Your task to perform on an android device: Go to Google maps Image 0: 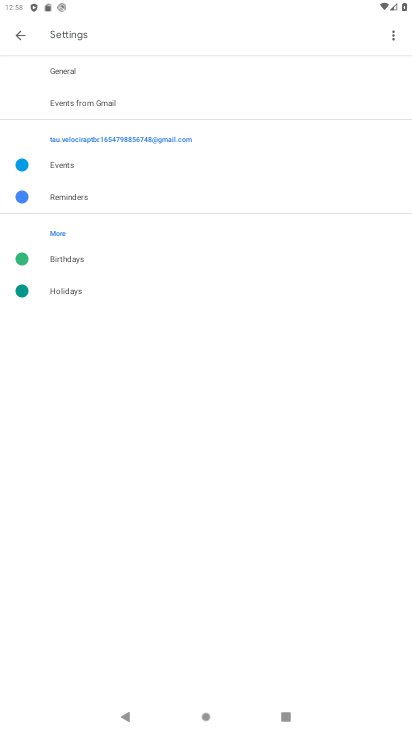
Step 0: press home button
Your task to perform on an android device: Go to Google maps Image 1: 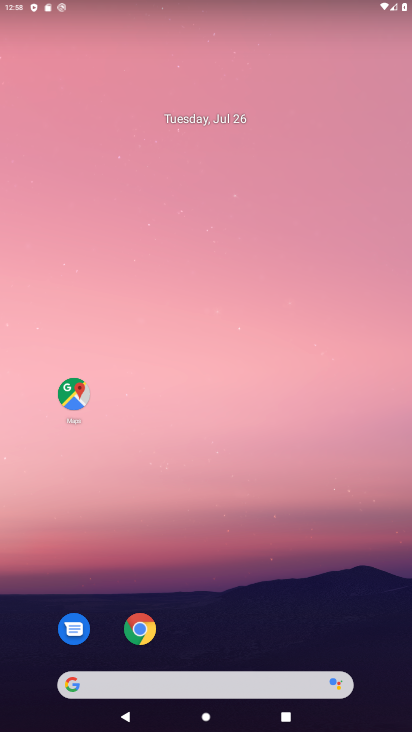
Step 1: click (73, 389)
Your task to perform on an android device: Go to Google maps Image 2: 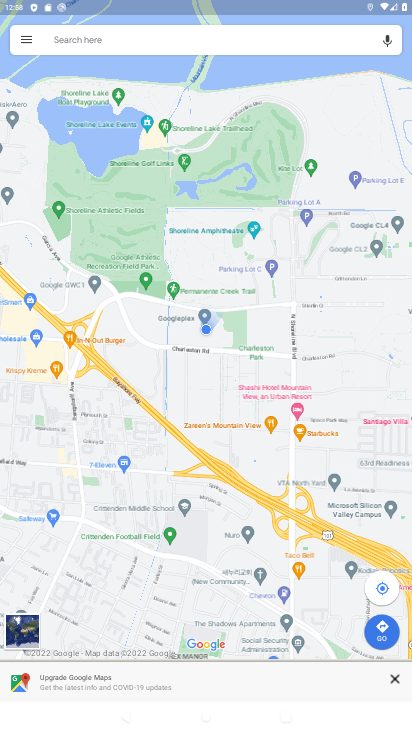
Step 2: task complete